Your task to perform on an android device: snooze an email in the gmail app Image 0: 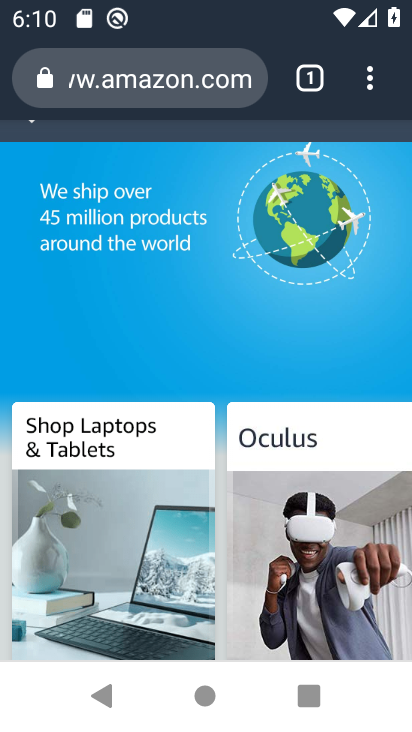
Step 0: press home button
Your task to perform on an android device: snooze an email in the gmail app Image 1: 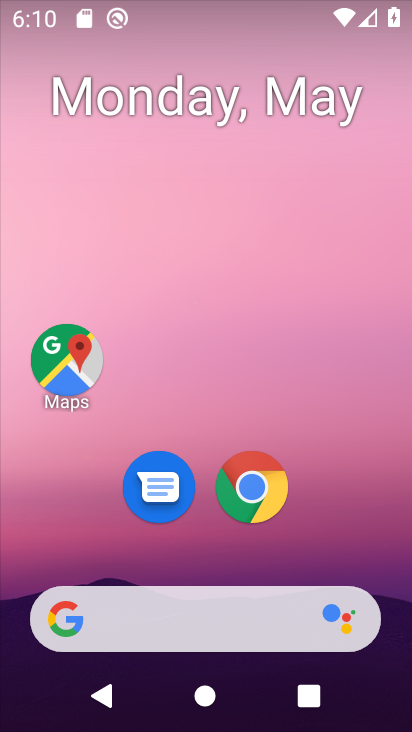
Step 1: drag from (203, 565) to (286, 124)
Your task to perform on an android device: snooze an email in the gmail app Image 2: 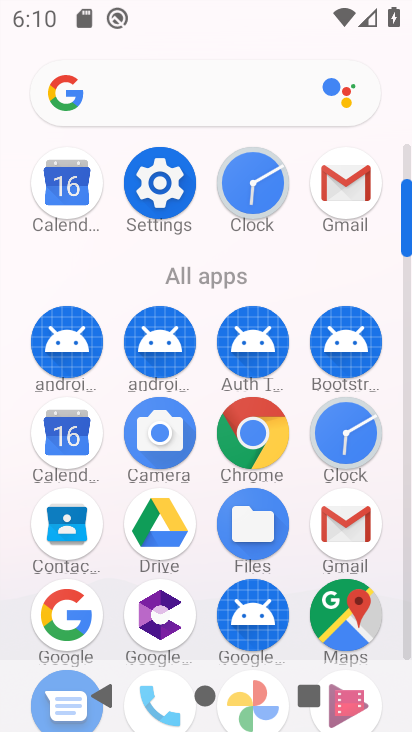
Step 2: click (348, 509)
Your task to perform on an android device: snooze an email in the gmail app Image 3: 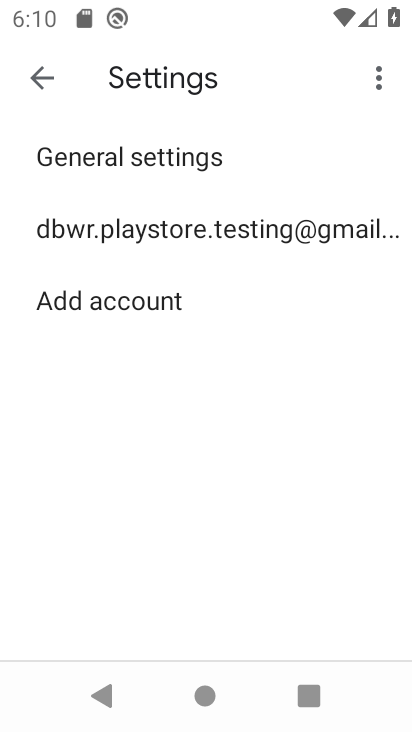
Step 3: click (41, 77)
Your task to perform on an android device: snooze an email in the gmail app Image 4: 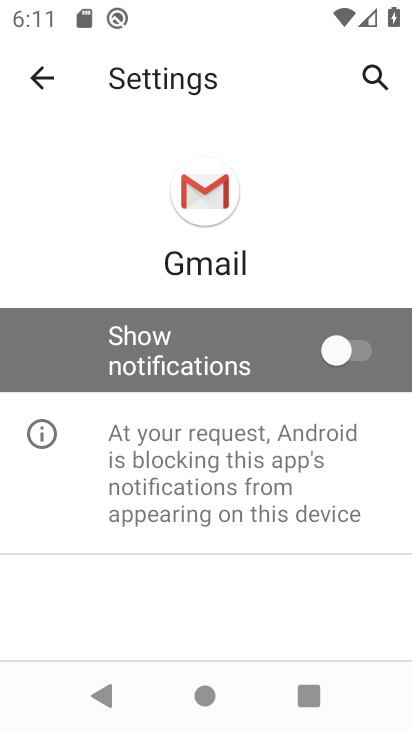
Step 4: click (40, 81)
Your task to perform on an android device: snooze an email in the gmail app Image 5: 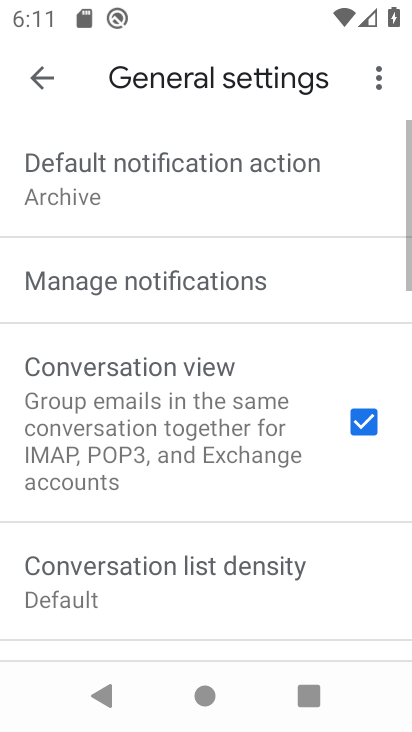
Step 5: click (40, 81)
Your task to perform on an android device: snooze an email in the gmail app Image 6: 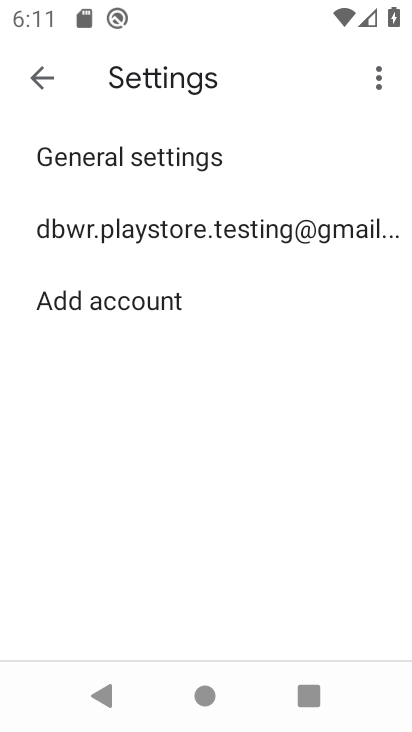
Step 6: click (40, 81)
Your task to perform on an android device: snooze an email in the gmail app Image 7: 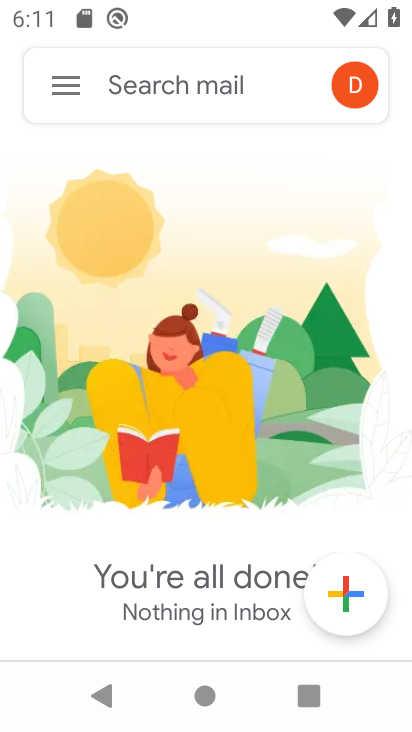
Step 7: task complete